Your task to perform on an android device: Is it going to rain this weekend? Image 0: 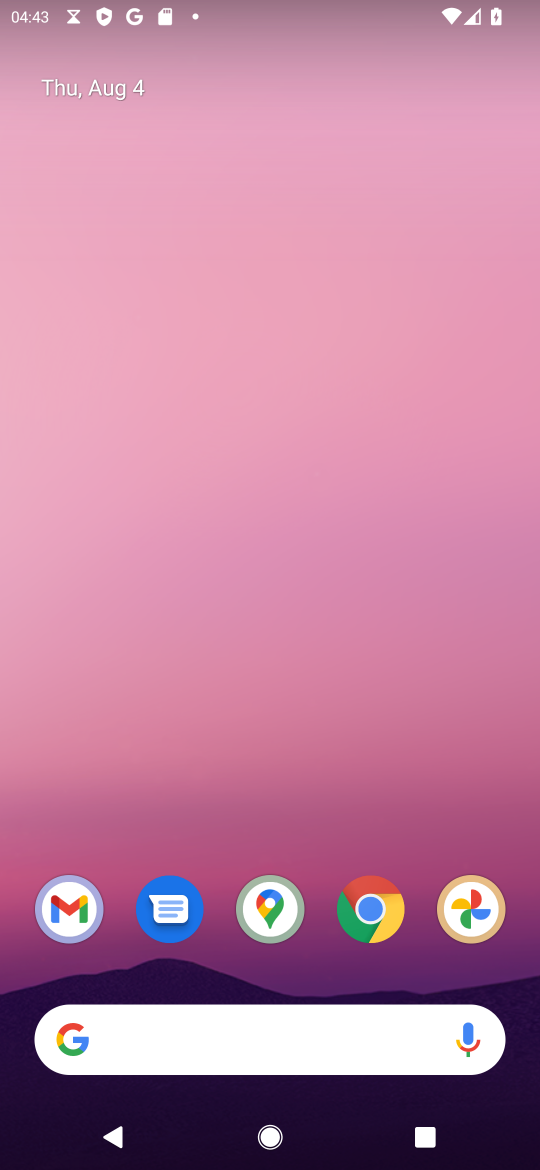
Step 0: click (184, 1040)
Your task to perform on an android device: Is it going to rain this weekend? Image 1: 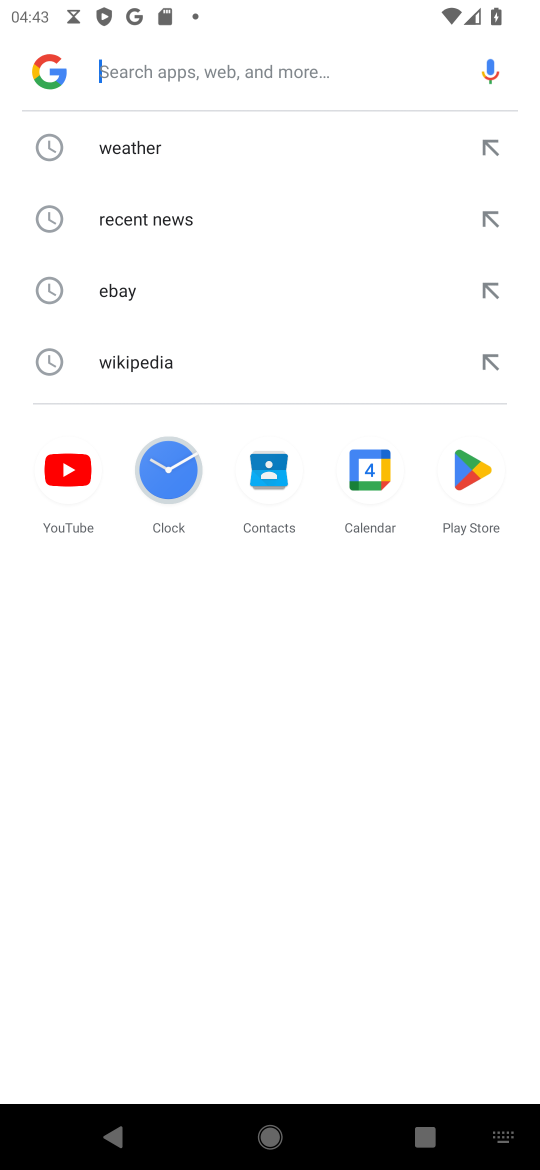
Step 1: click (126, 144)
Your task to perform on an android device: Is it going to rain this weekend? Image 2: 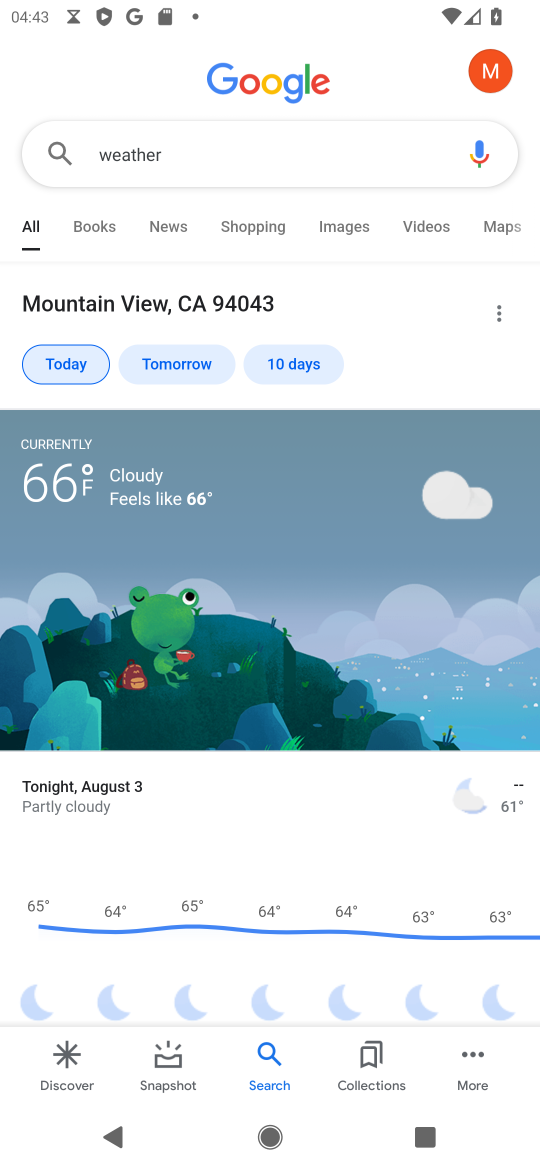
Step 2: click (293, 355)
Your task to perform on an android device: Is it going to rain this weekend? Image 3: 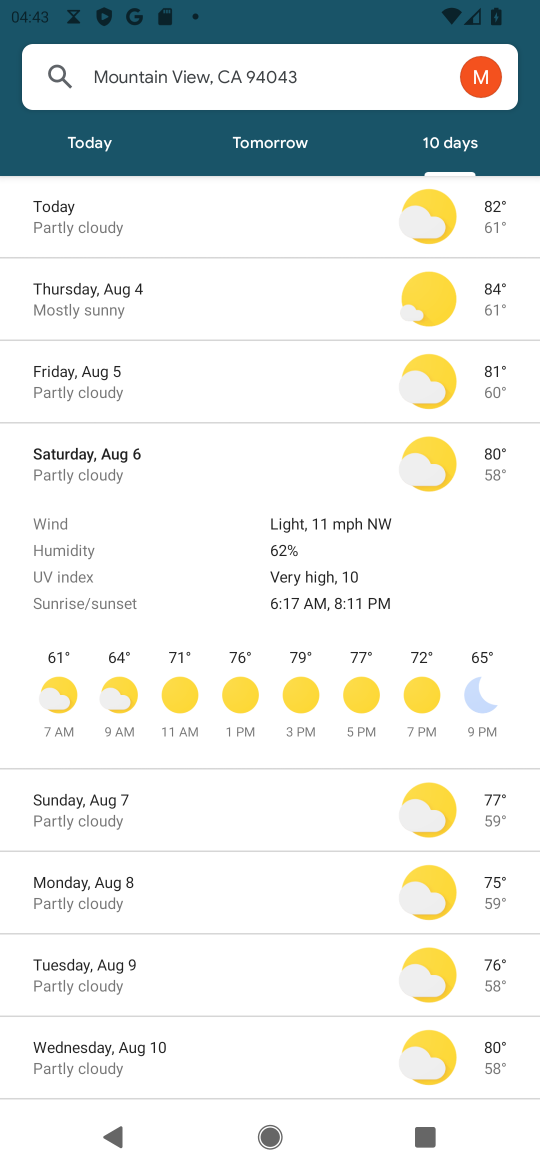
Step 3: task complete